Your task to perform on an android device: Go to location settings Image 0: 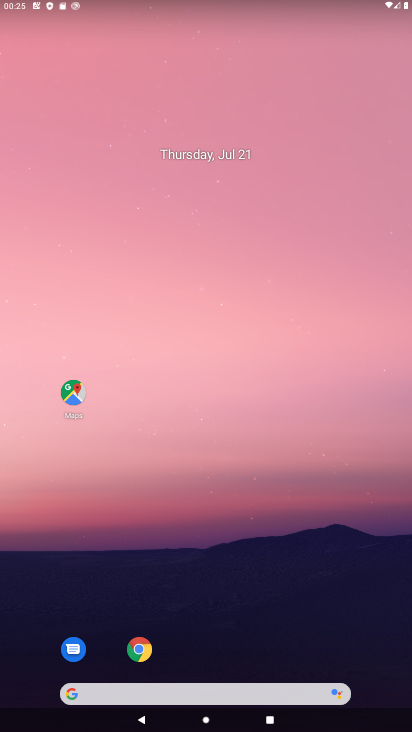
Step 0: drag from (223, 686) to (223, 217)
Your task to perform on an android device: Go to location settings Image 1: 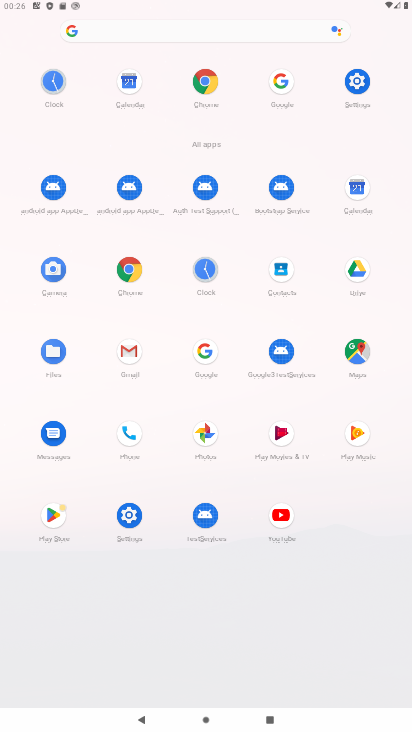
Step 1: click (366, 77)
Your task to perform on an android device: Go to location settings Image 2: 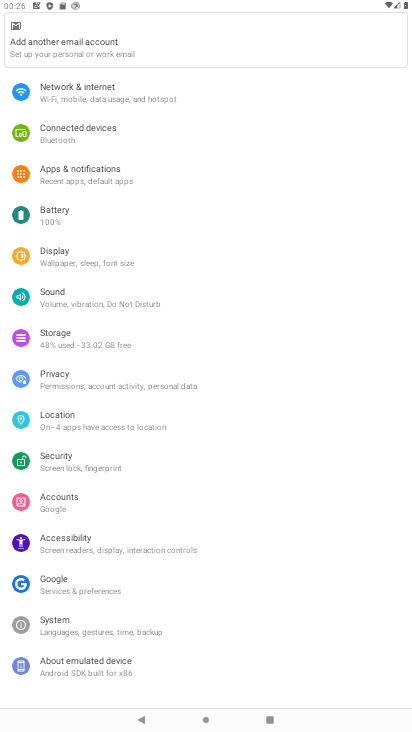
Step 2: click (75, 420)
Your task to perform on an android device: Go to location settings Image 3: 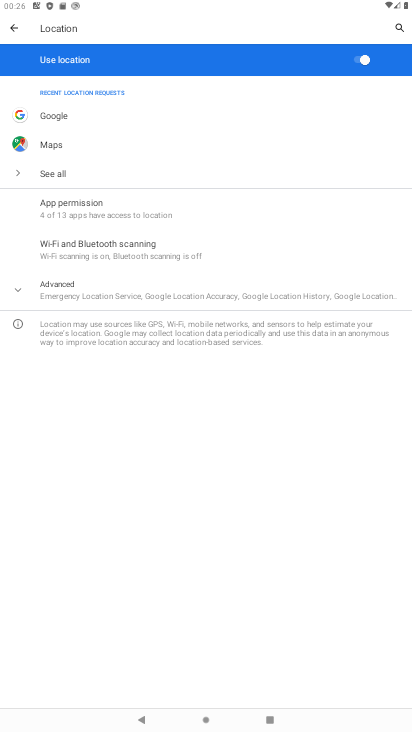
Step 3: task complete